Your task to perform on an android device: open chrome and create a bookmark for the current page Image 0: 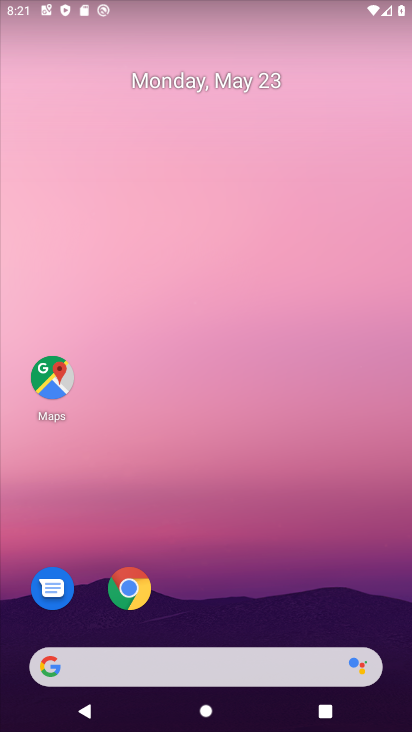
Step 0: click (134, 590)
Your task to perform on an android device: open chrome and create a bookmark for the current page Image 1: 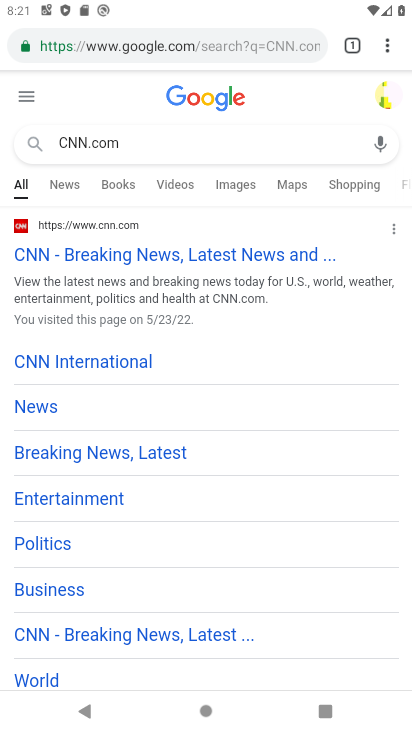
Step 1: click (385, 44)
Your task to perform on an android device: open chrome and create a bookmark for the current page Image 2: 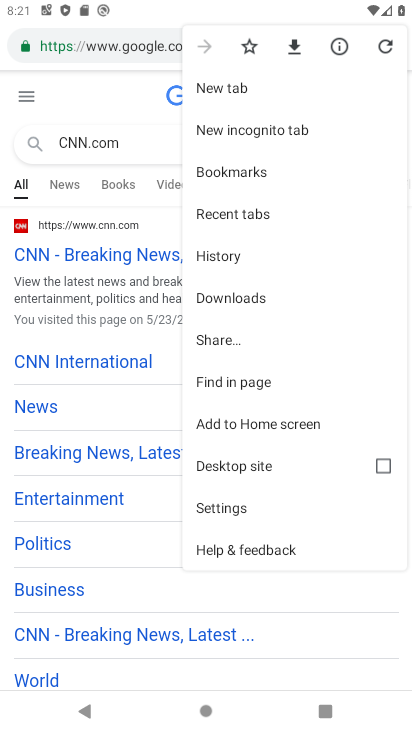
Step 2: click (246, 47)
Your task to perform on an android device: open chrome and create a bookmark for the current page Image 3: 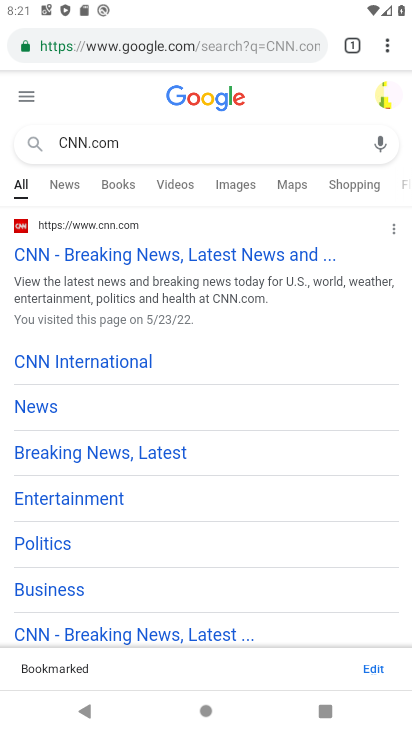
Step 3: task complete